Your task to perform on an android device: What's the weather going to be tomorrow? Image 0: 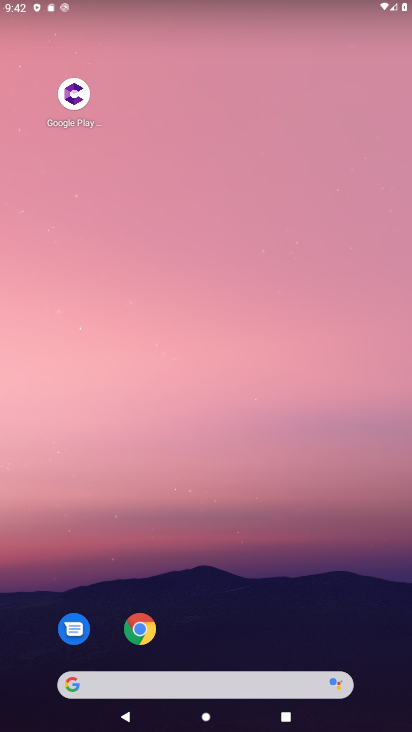
Step 0: click (176, 677)
Your task to perform on an android device: What's the weather going to be tomorrow? Image 1: 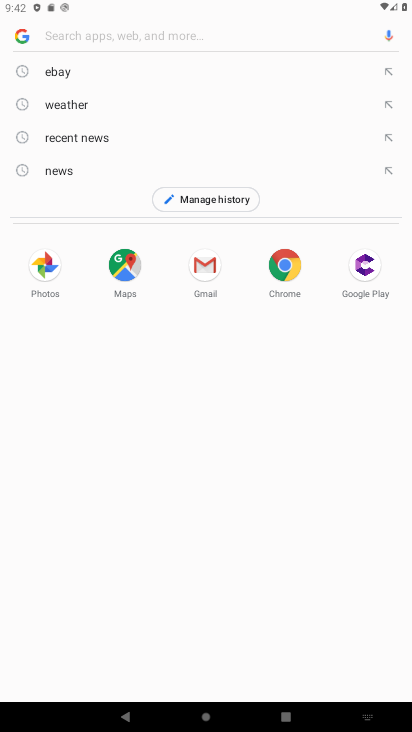
Step 1: type "What's the weather going to be tomorrow?"
Your task to perform on an android device: What's the weather going to be tomorrow? Image 2: 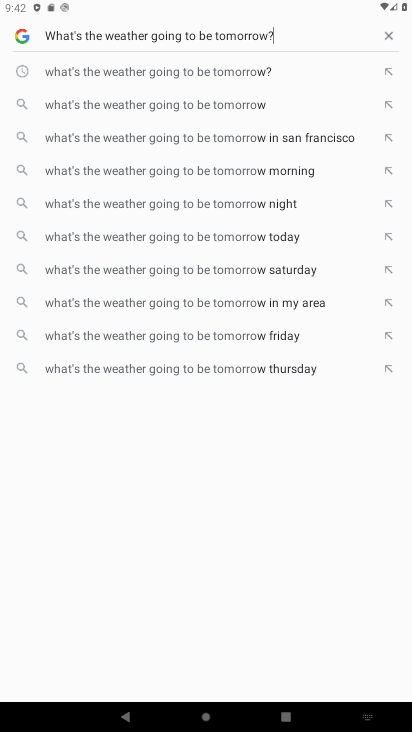
Step 2: press enter
Your task to perform on an android device: What's the weather going to be tomorrow? Image 3: 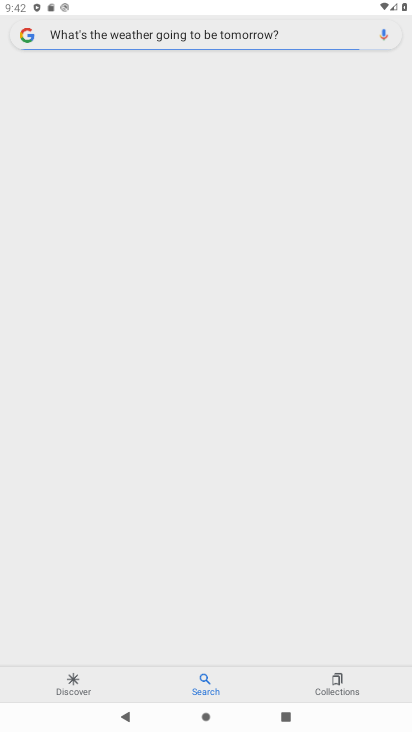
Step 3: press enter
Your task to perform on an android device: What's the weather going to be tomorrow? Image 4: 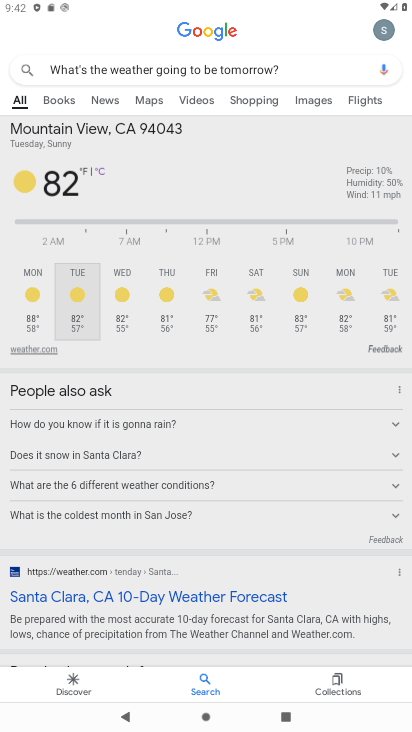
Step 4: task complete